Your task to perform on an android device: add a label to a message in the gmail app Image 0: 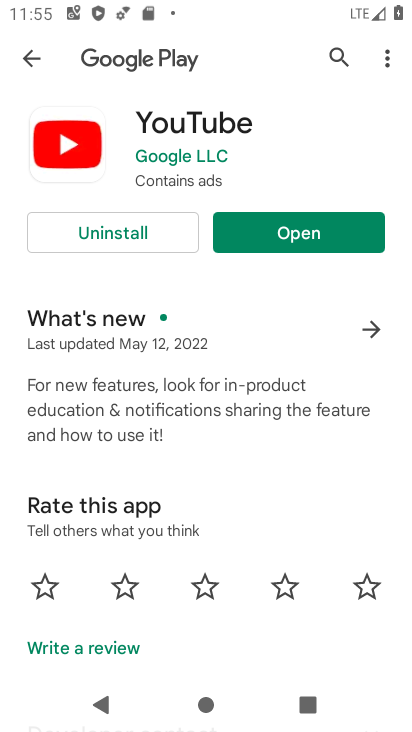
Step 0: press home button
Your task to perform on an android device: add a label to a message in the gmail app Image 1: 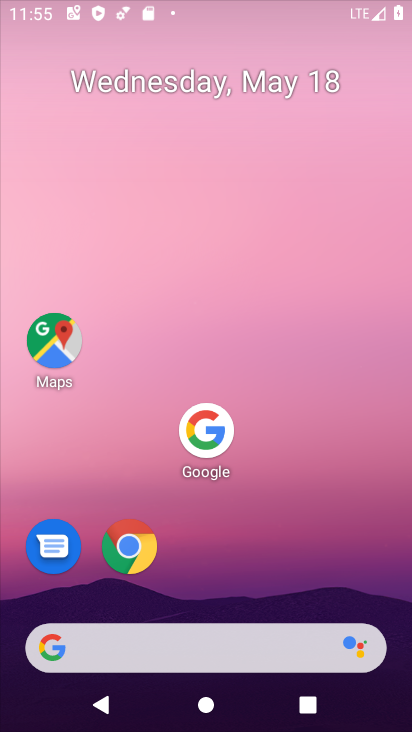
Step 1: drag from (265, 564) to (230, 14)
Your task to perform on an android device: add a label to a message in the gmail app Image 2: 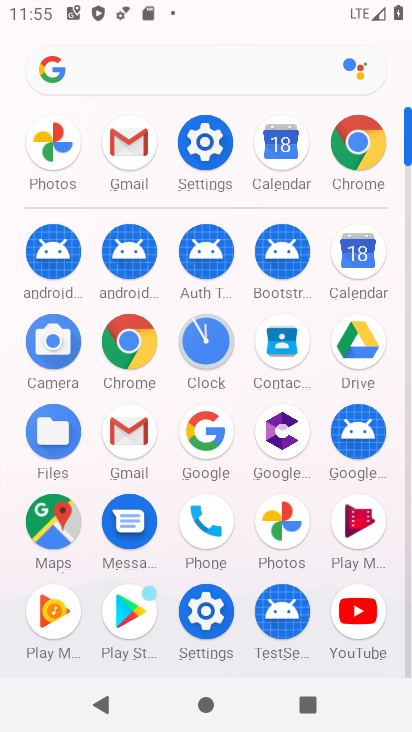
Step 2: click (122, 142)
Your task to perform on an android device: add a label to a message in the gmail app Image 3: 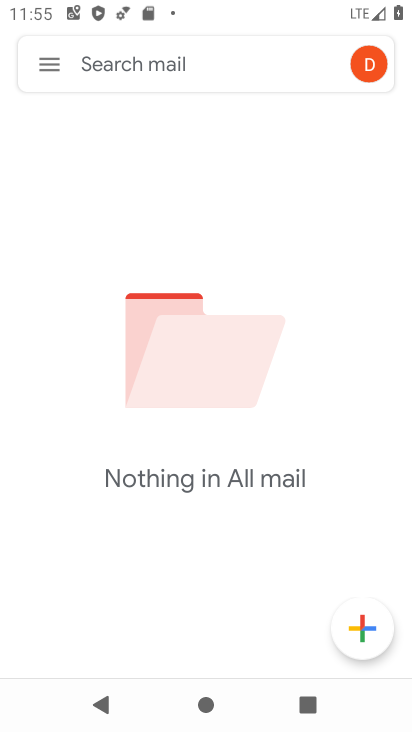
Step 3: click (51, 63)
Your task to perform on an android device: add a label to a message in the gmail app Image 4: 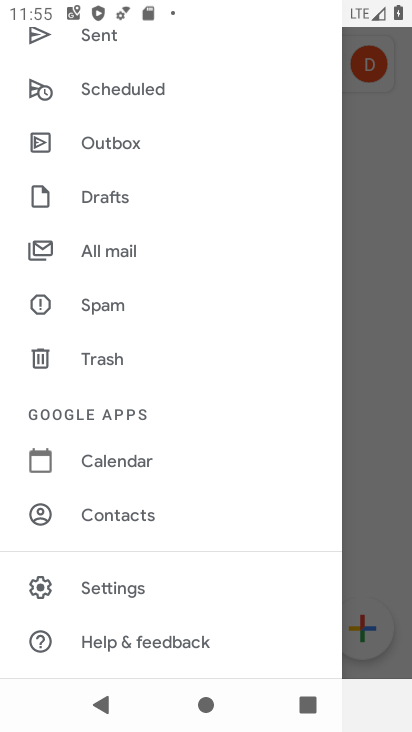
Step 4: click (97, 241)
Your task to perform on an android device: add a label to a message in the gmail app Image 5: 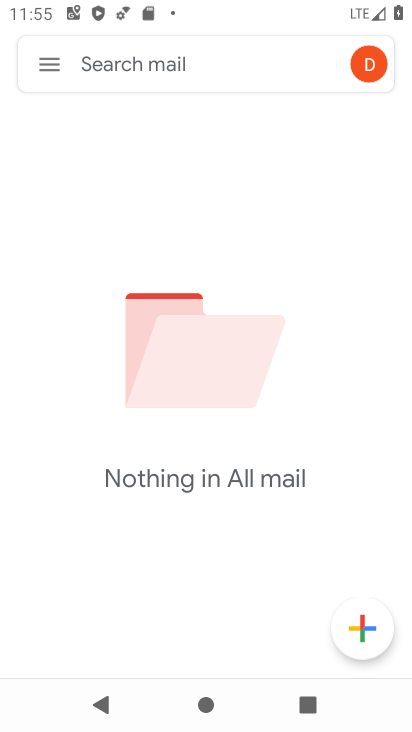
Step 5: click (45, 64)
Your task to perform on an android device: add a label to a message in the gmail app Image 6: 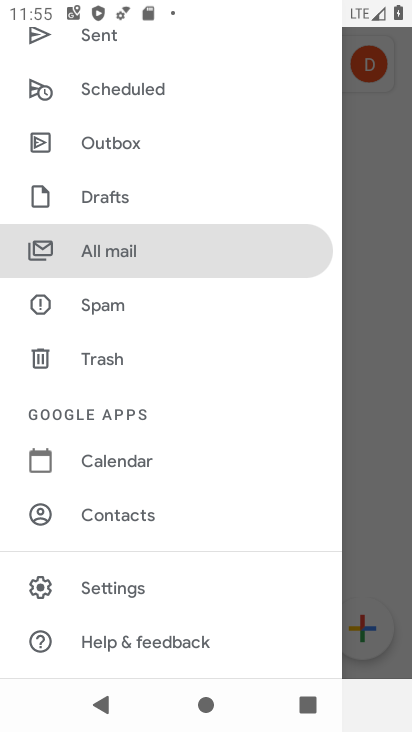
Step 6: task complete